Your task to perform on an android device: Add "energizer triple a" to the cart on bestbuy, then select checkout. Image 0: 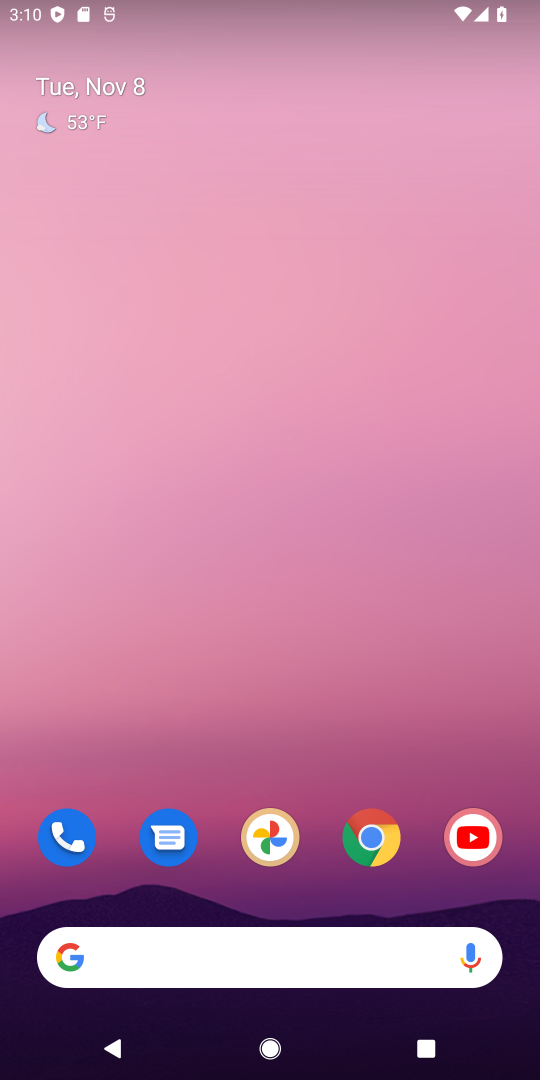
Step 0: click (363, 840)
Your task to perform on an android device: Add "energizer triple a" to the cart on bestbuy, then select checkout. Image 1: 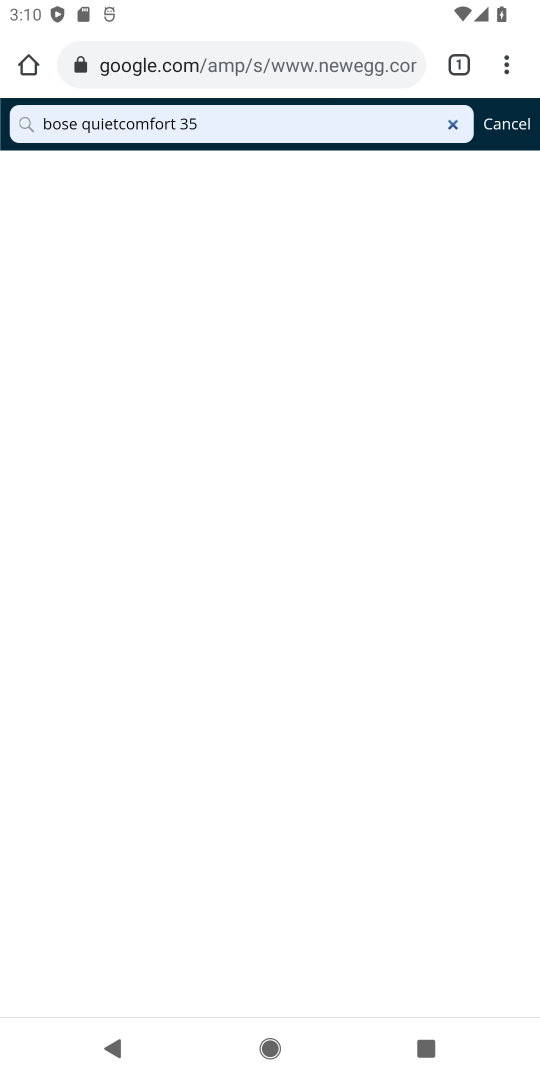
Step 1: click (225, 65)
Your task to perform on an android device: Add "energizer triple a" to the cart on bestbuy, then select checkout. Image 2: 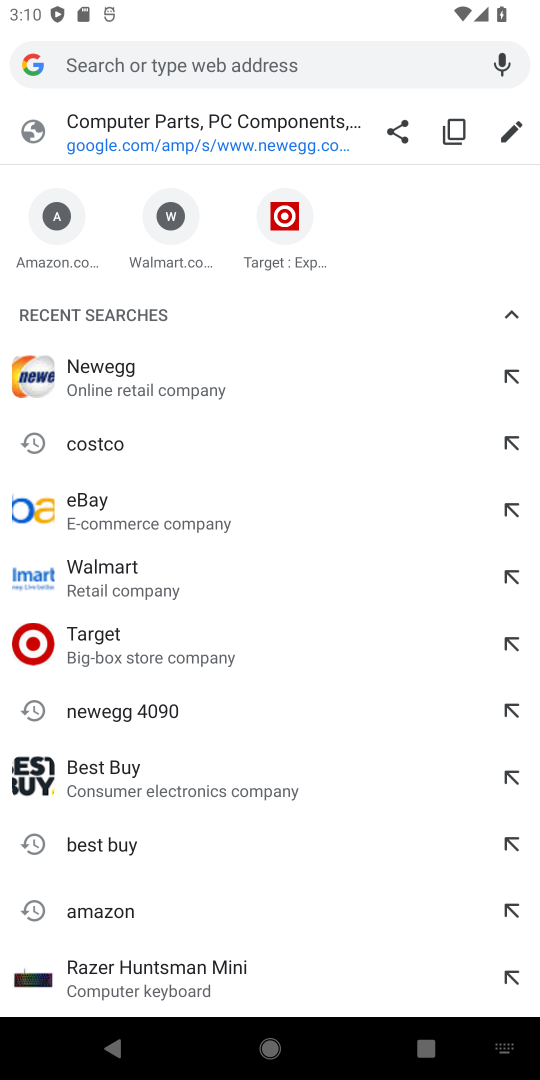
Step 2: click (96, 772)
Your task to perform on an android device: Add "energizer triple a" to the cart on bestbuy, then select checkout. Image 3: 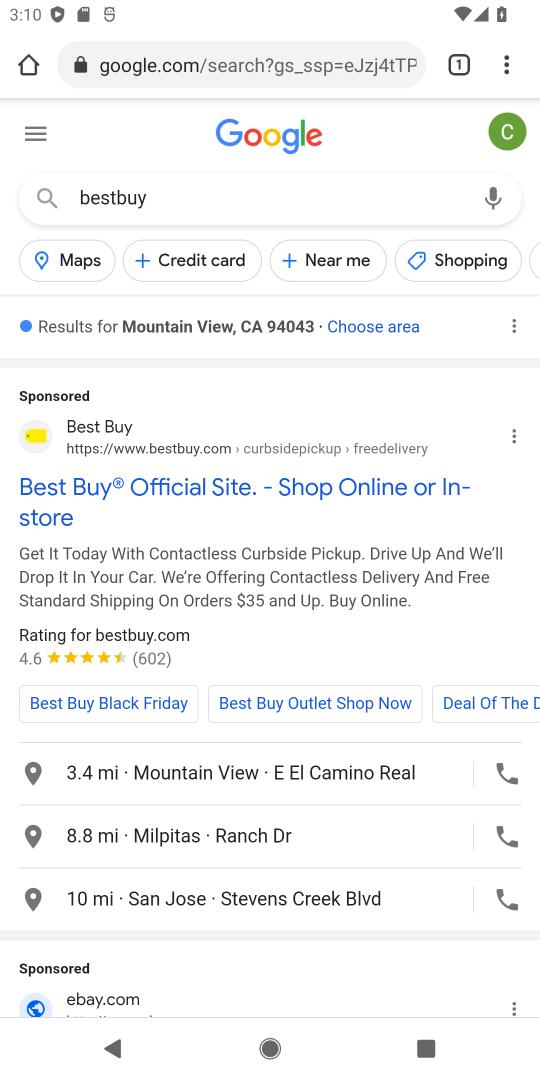
Step 3: drag from (201, 702) to (156, 244)
Your task to perform on an android device: Add "energizer triple a" to the cart on bestbuy, then select checkout. Image 4: 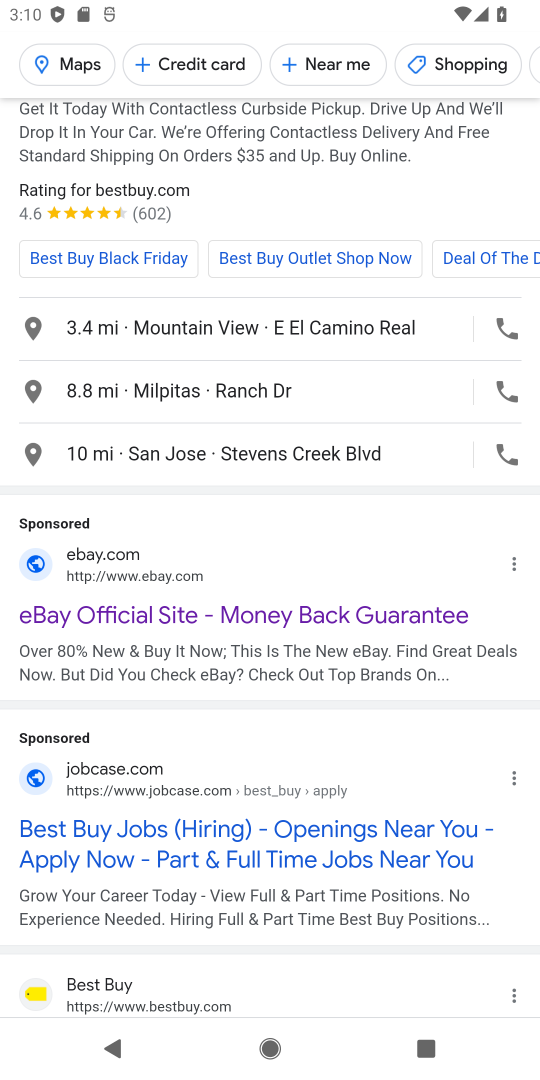
Step 4: drag from (196, 394) to (211, 854)
Your task to perform on an android device: Add "energizer triple a" to the cart on bestbuy, then select checkout. Image 5: 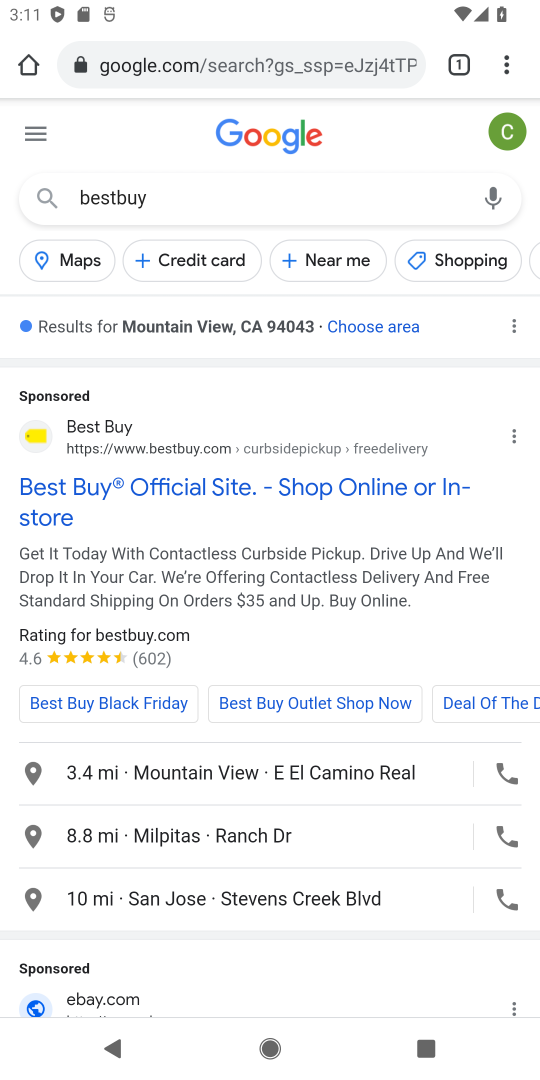
Step 5: click (179, 486)
Your task to perform on an android device: Add "energizer triple a" to the cart on bestbuy, then select checkout. Image 6: 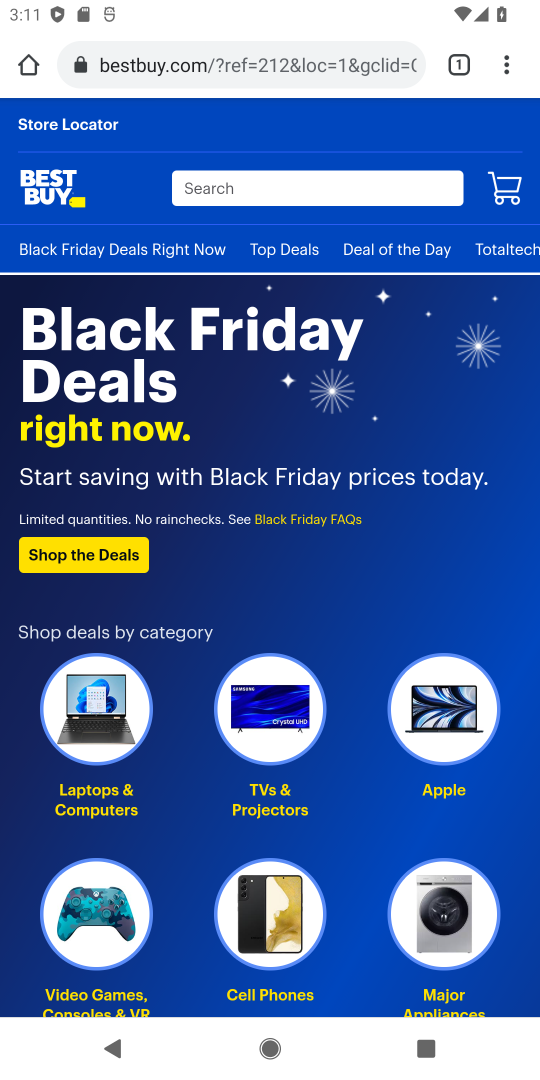
Step 6: click (339, 189)
Your task to perform on an android device: Add "energizer triple a" to the cart on bestbuy, then select checkout. Image 7: 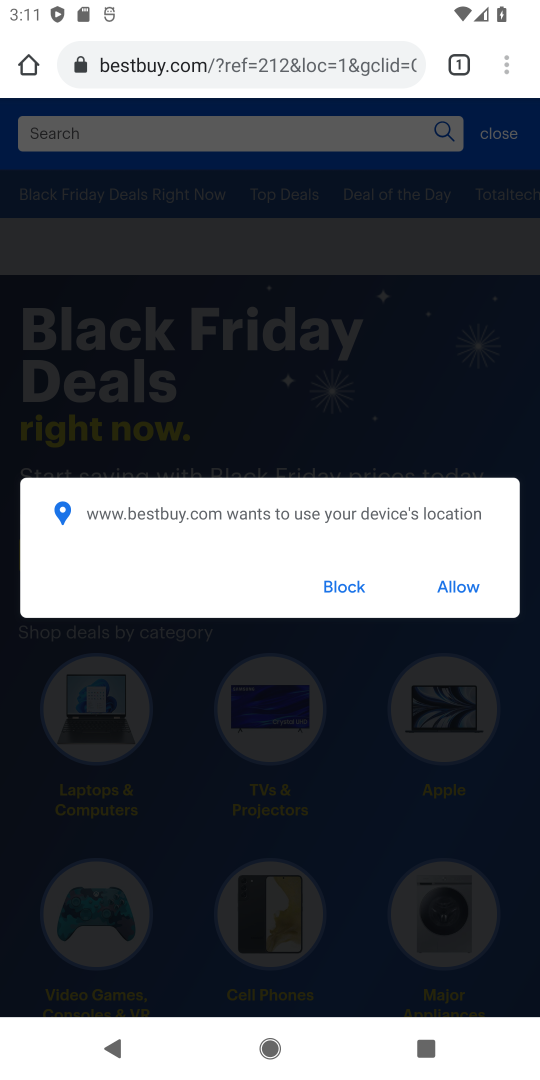
Step 7: click (462, 581)
Your task to perform on an android device: Add "energizer triple a" to the cart on bestbuy, then select checkout. Image 8: 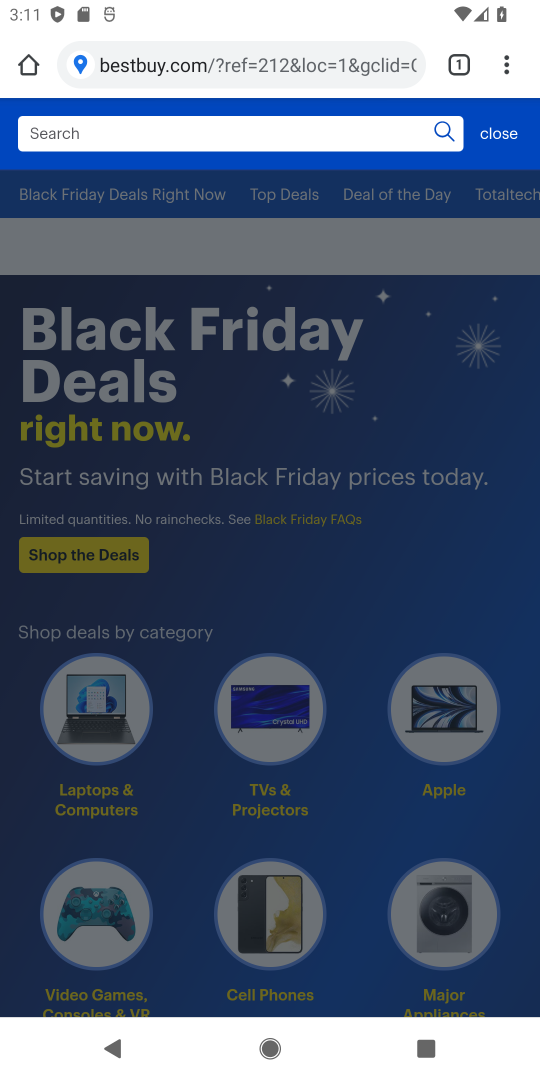
Step 8: click (317, 116)
Your task to perform on an android device: Add "energizer triple a" to the cart on bestbuy, then select checkout. Image 9: 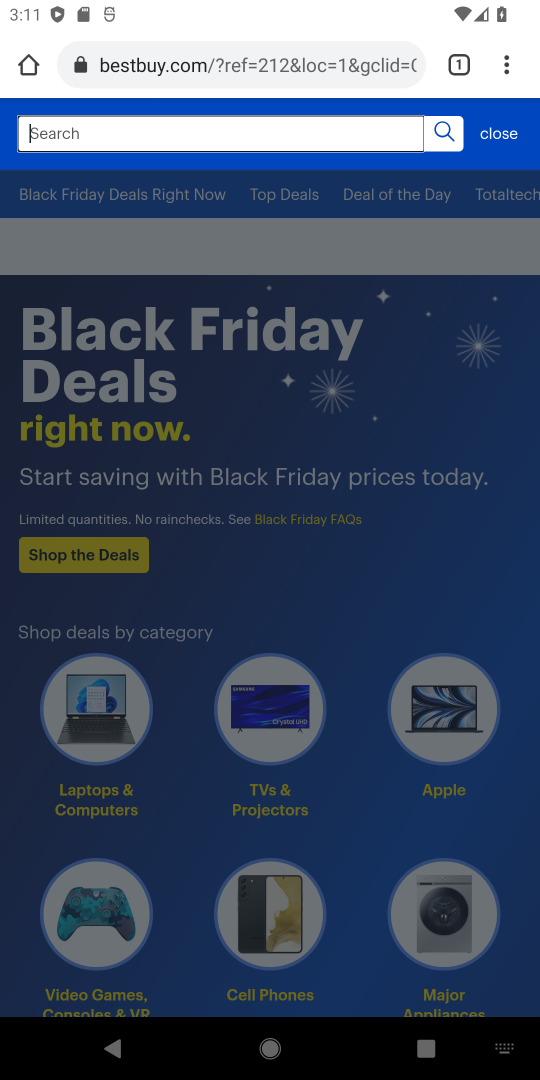
Step 9: type "energizer triple"
Your task to perform on an android device: Add "energizer triple a" to the cart on bestbuy, then select checkout. Image 10: 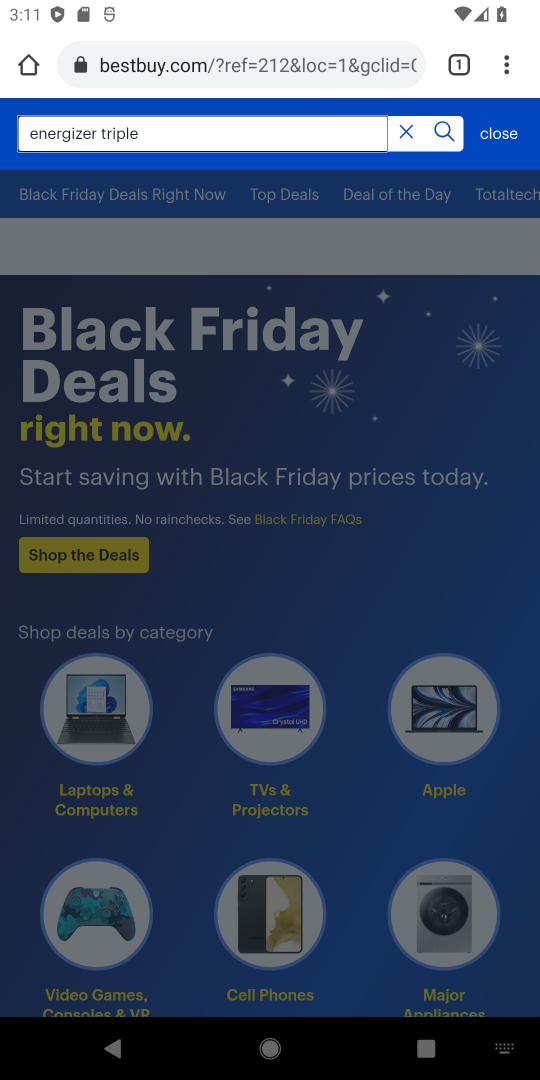
Step 10: type ""
Your task to perform on an android device: Add "energizer triple a" to the cart on bestbuy, then select checkout. Image 11: 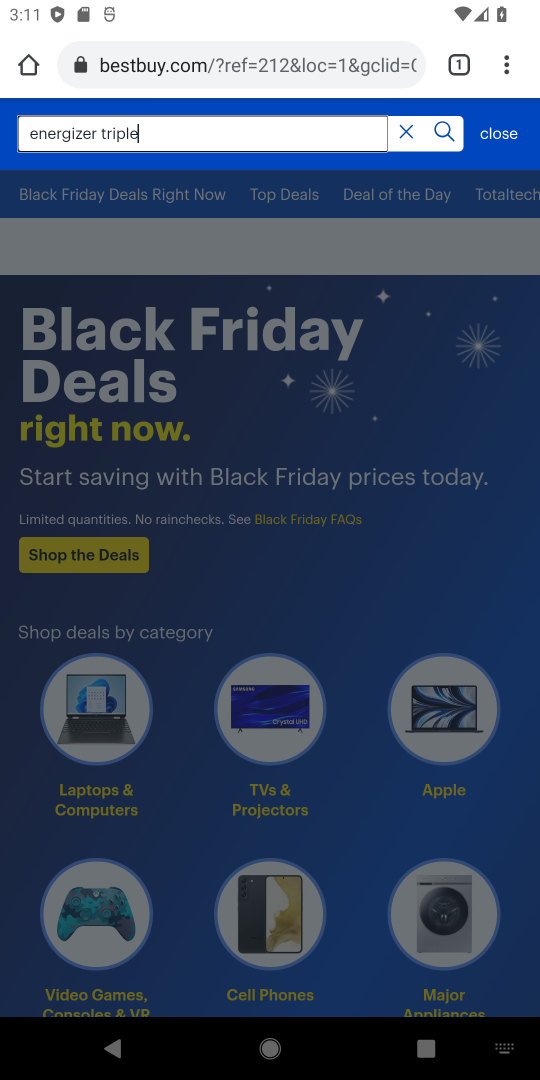
Step 11: click (452, 130)
Your task to perform on an android device: Add "energizer triple a" to the cart on bestbuy, then select checkout. Image 12: 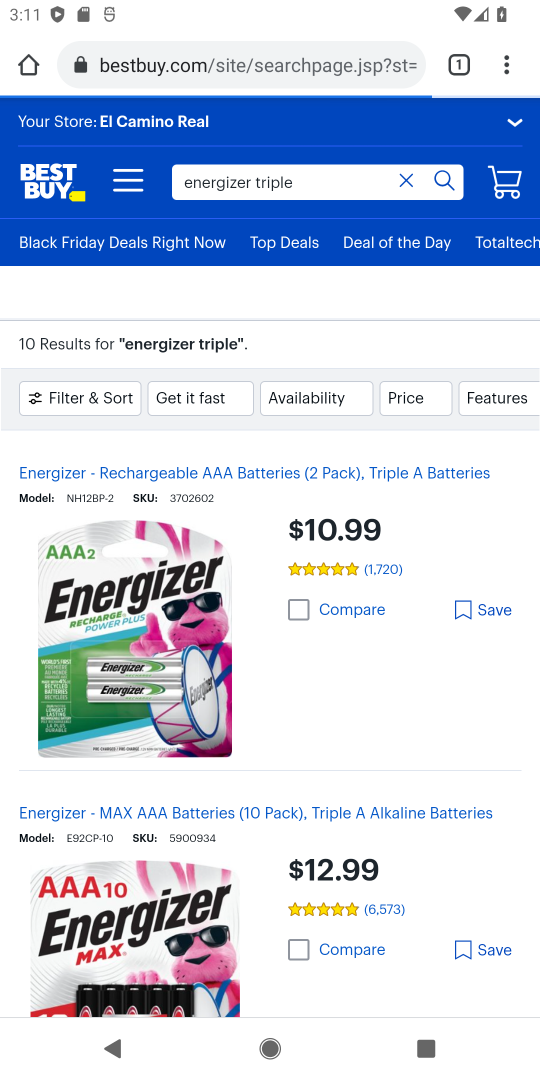
Step 12: click (144, 643)
Your task to perform on an android device: Add "energizer triple a" to the cart on bestbuy, then select checkout. Image 13: 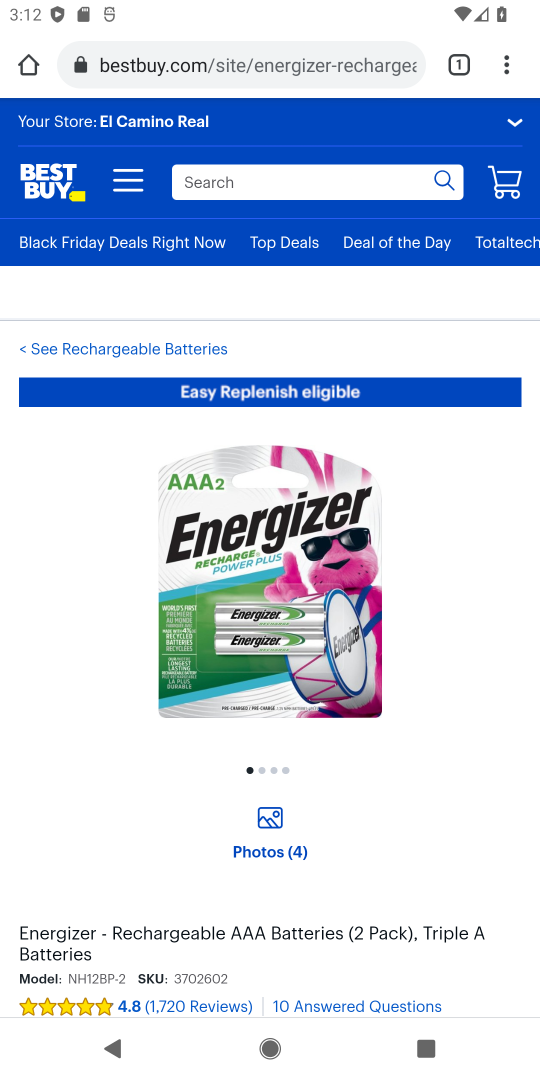
Step 13: drag from (242, 827) to (275, 138)
Your task to perform on an android device: Add "energizer triple a" to the cart on bestbuy, then select checkout. Image 14: 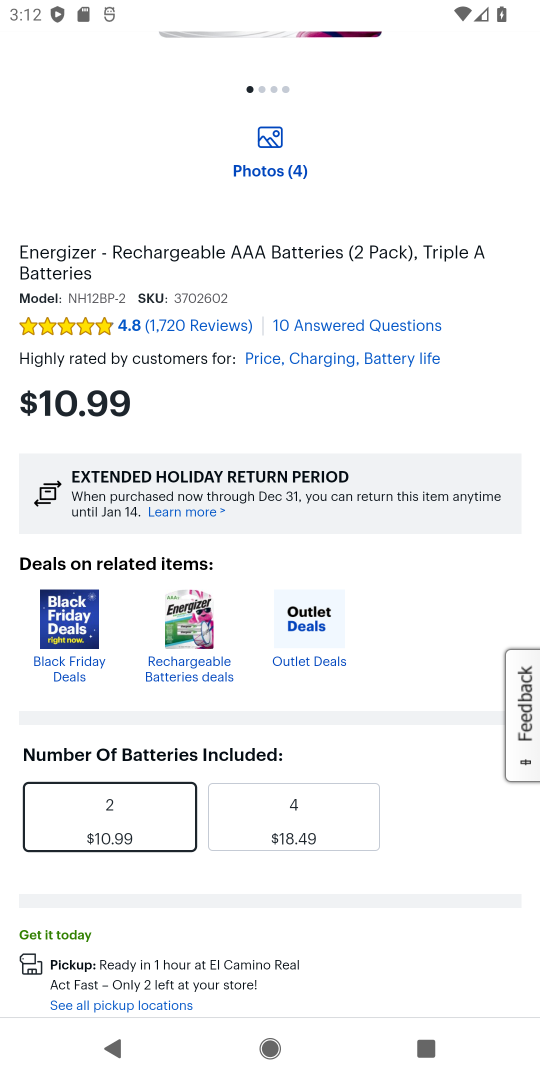
Step 14: drag from (283, 633) to (350, 52)
Your task to perform on an android device: Add "energizer triple a" to the cart on bestbuy, then select checkout. Image 15: 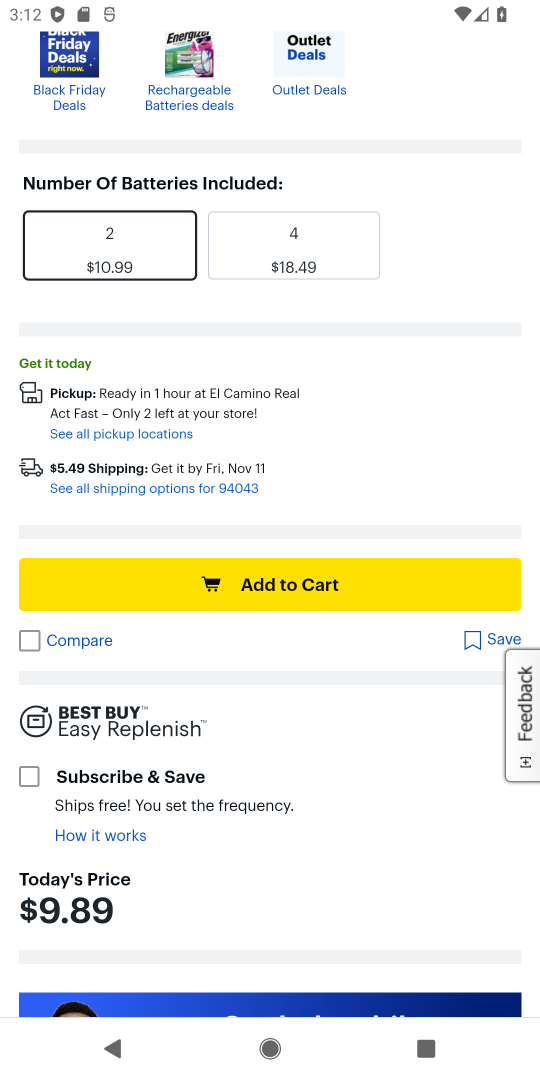
Step 15: click (293, 579)
Your task to perform on an android device: Add "energizer triple a" to the cart on bestbuy, then select checkout. Image 16: 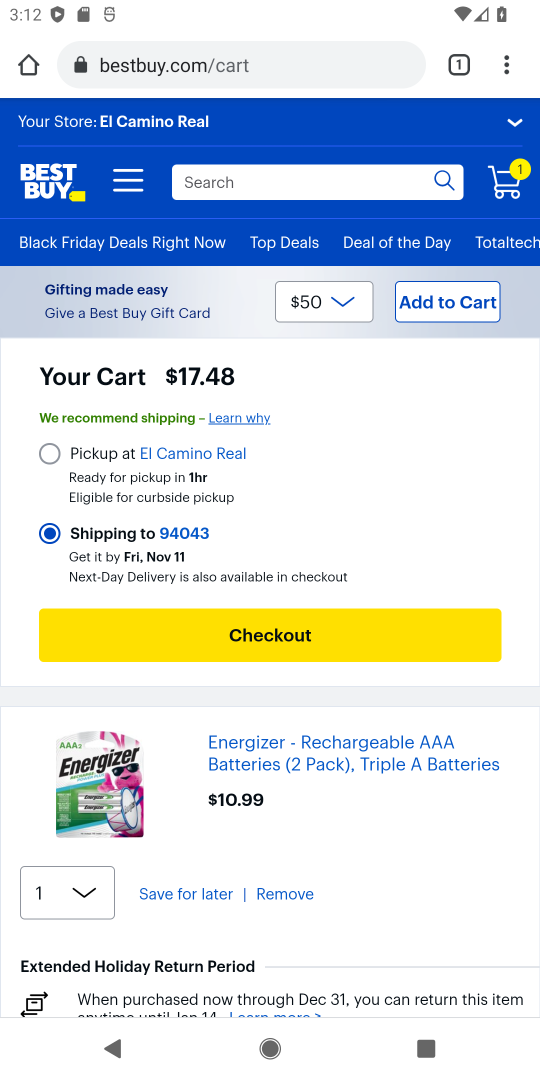
Step 16: click (268, 636)
Your task to perform on an android device: Add "energizer triple a" to the cart on bestbuy, then select checkout. Image 17: 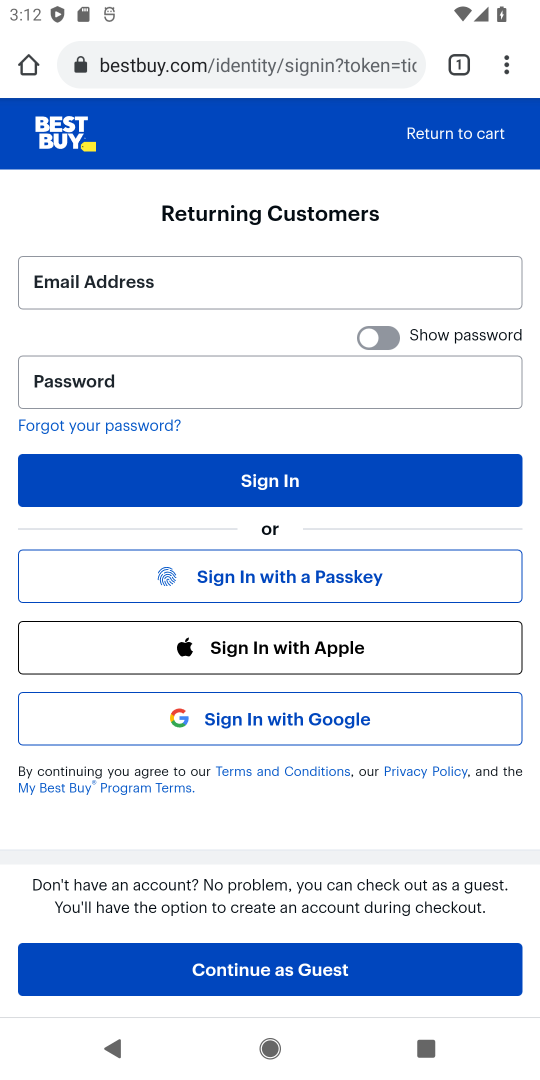
Step 17: press back button
Your task to perform on an android device: Add "energizer triple a" to the cart on bestbuy, then select checkout. Image 18: 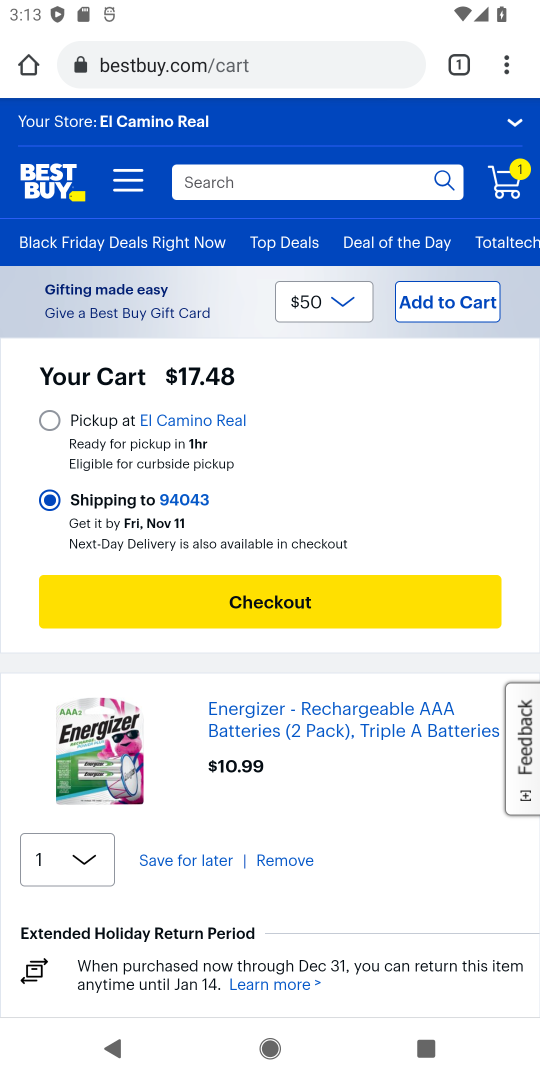
Step 18: click (303, 603)
Your task to perform on an android device: Add "energizer triple a" to the cart on bestbuy, then select checkout. Image 19: 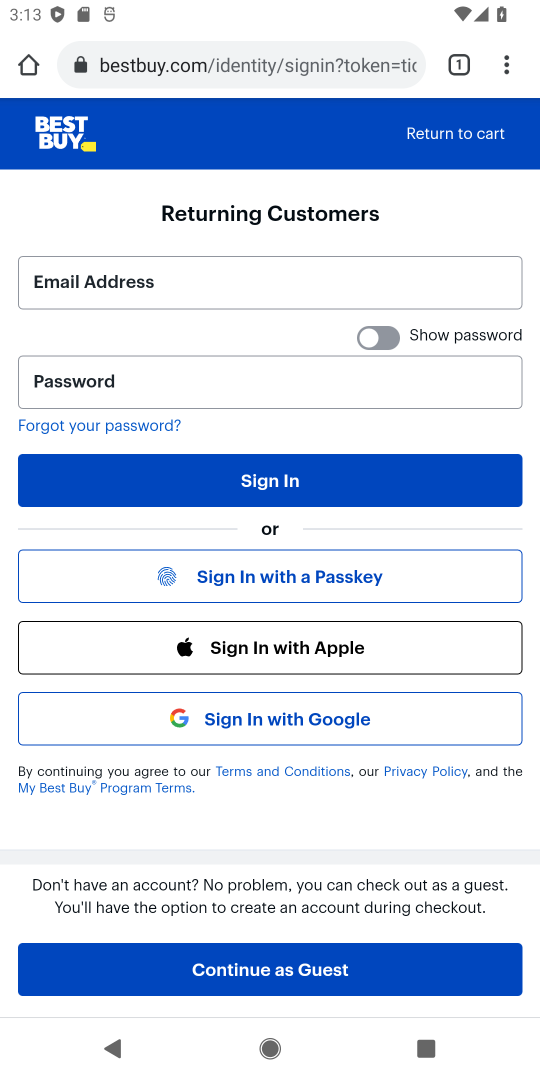
Step 19: task complete